Your task to perform on an android device: View the shopping cart on walmart. Add "macbook pro" to the cart on walmart, then select checkout. Image 0: 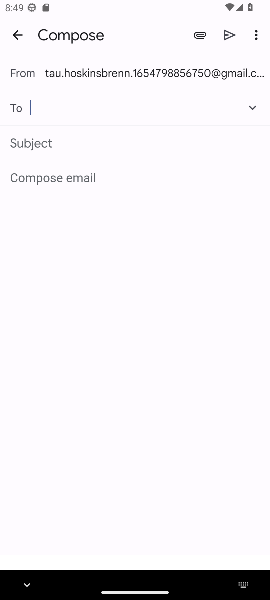
Step 0: press home button
Your task to perform on an android device: View the shopping cart on walmart. Add "macbook pro" to the cart on walmart, then select checkout. Image 1: 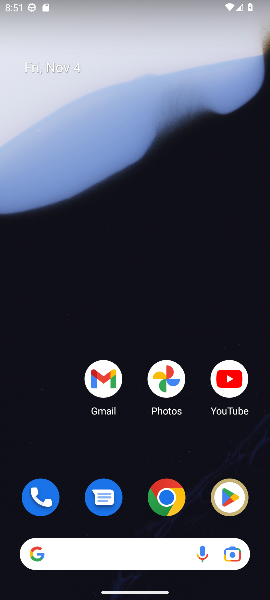
Step 1: click (169, 496)
Your task to perform on an android device: View the shopping cart on walmart. Add "macbook pro" to the cart on walmart, then select checkout. Image 2: 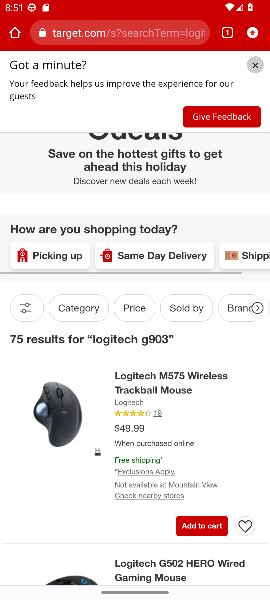
Step 2: click (101, 32)
Your task to perform on an android device: View the shopping cart on walmart. Add "macbook pro" to the cart on walmart, then select checkout. Image 3: 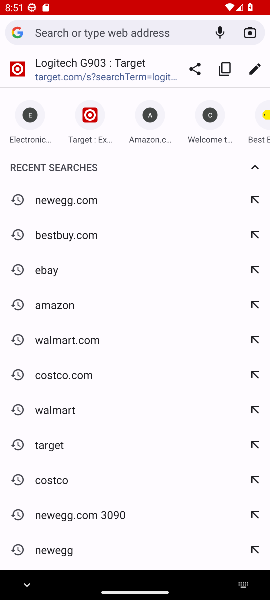
Step 3: type "walmart.com"
Your task to perform on an android device: View the shopping cart on walmart. Add "macbook pro" to the cart on walmart, then select checkout. Image 4: 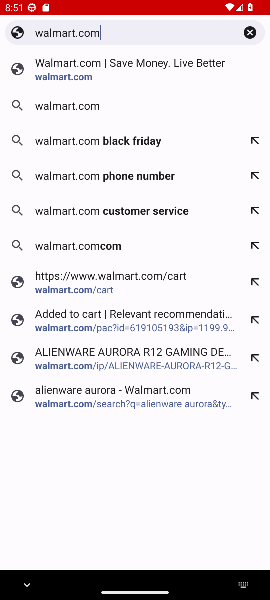
Step 4: click (54, 75)
Your task to perform on an android device: View the shopping cart on walmart. Add "macbook pro" to the cart on walmart, then select checkout. Image 5: 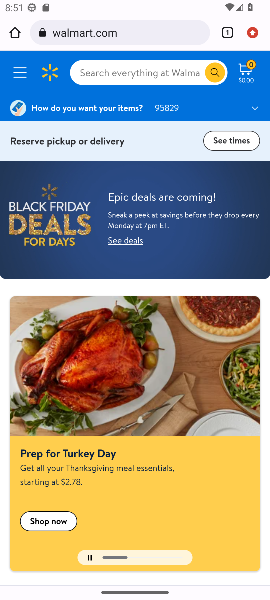
Step 5: click (241, 73)
Your task to perform on an android device: View the shopping cart on walmart. Add "macbook pro" to the cart on walmart, then select checkout. Image 6: 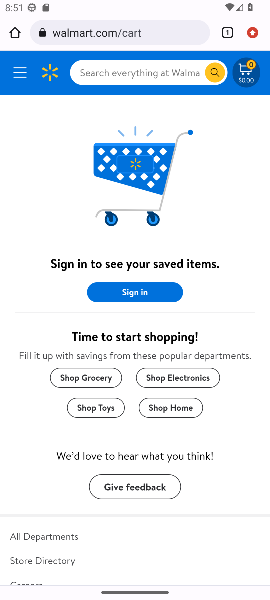
Step 6: click (123, 78)
Your task to perform on an android device: View the shopping cart on walmart. Add "macbook pro" to the cart on walmart, then select checkout. Image 7: 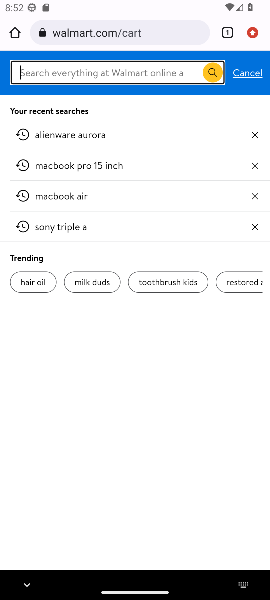
Step 7: type "macbook pro"
Your task to perform on an android device: View the shopping cart on walmart. Add "macbook pro" to the cart on walmart, then select checkout. Image 8: 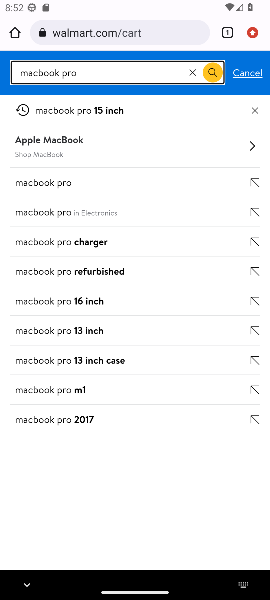
Step 8: click (45, 180)
Your task to perform on an android device: View the shopping cart on walmart. Add "macbook pro" to the cart on walmart, then select checkout. Image 9: 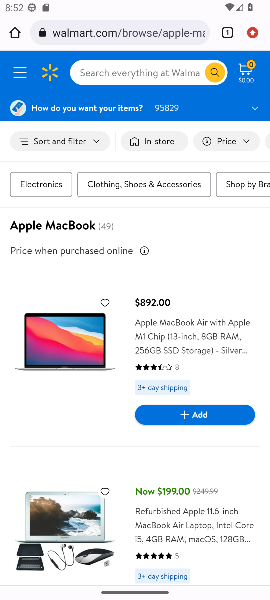
Step 9: drag from (127, 353) to (124, 194)
Your task to perform on an android device: View the shopping cart on walmart. Add "macbook pro" to the cart on walmart, then select checkout. Image 10: 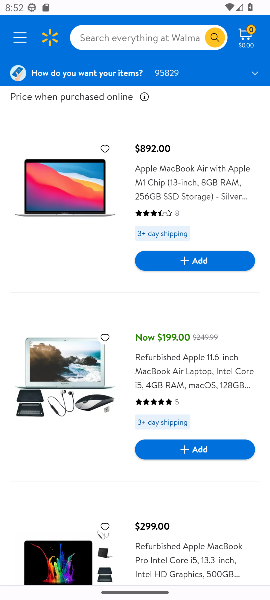
Step 10: drag from (122, 180) to (125, 513)
Your task to perform on an android device: View the shopping cart on walmart. Add "macbook pro" to the cart on walmart, then select checkout. Image 11: 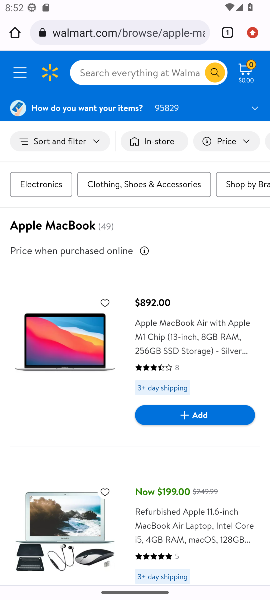
Step 11: click (146, 78)
Your task to perform on an android device: View the shopping cart on walmart. Add "macbook pro" to the cart on walmart, then select checkout. Image 12: 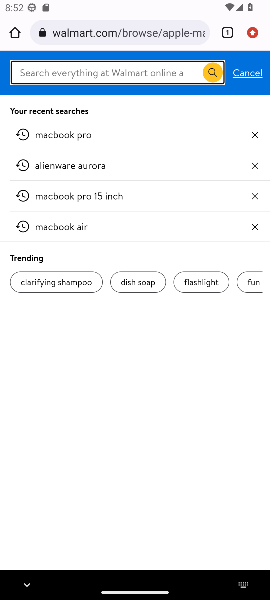
Step 12: click (78, 144)
Your task to perform on an android device: View the shopping cart on walmart. Add "macbook pro" to the cart on walmart, then select checkout. Image 13: 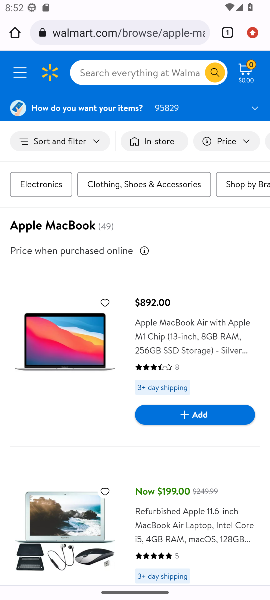
Step 13: task complete